Your task to perform on an android device: add a contact in the contacts app Image 0: 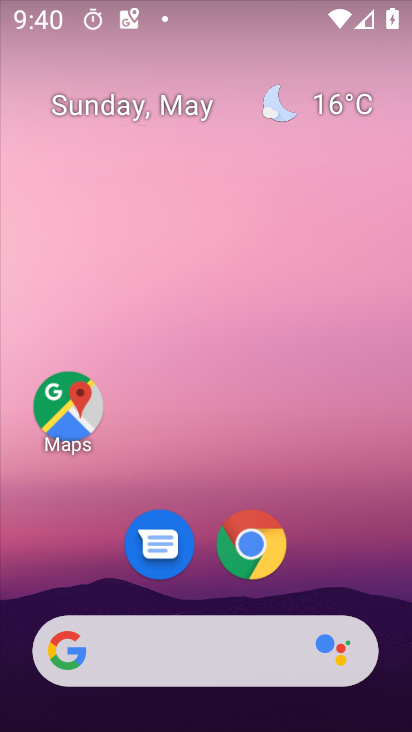
Step 0: drag from (320, 578) to (233, 10)
Your task to perform on an android device: add a contact in the contacts app Image 1: 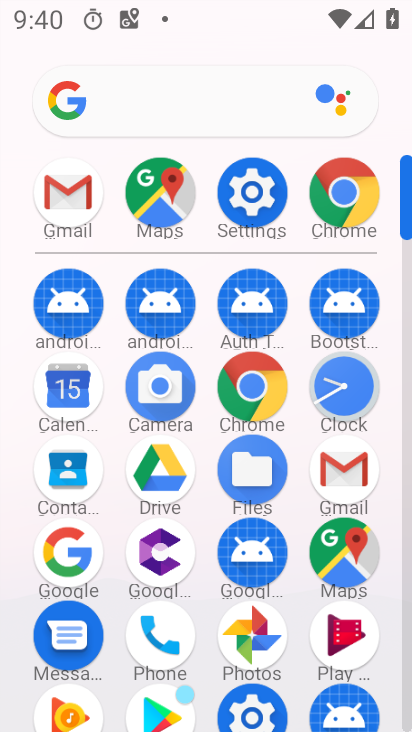
Step 1: click (75, 474)
Your task to perform on an android device: add a contact in the contacts app Image 2: 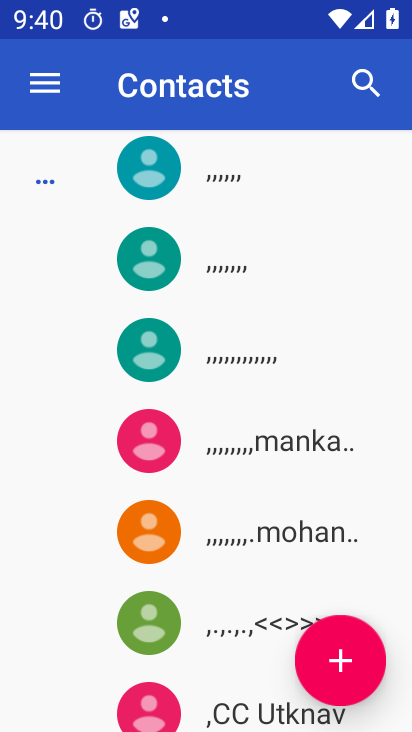
Step 2: click (352, 675)
Your task to perform on an android device: add a contact in the contacts app Image 3: 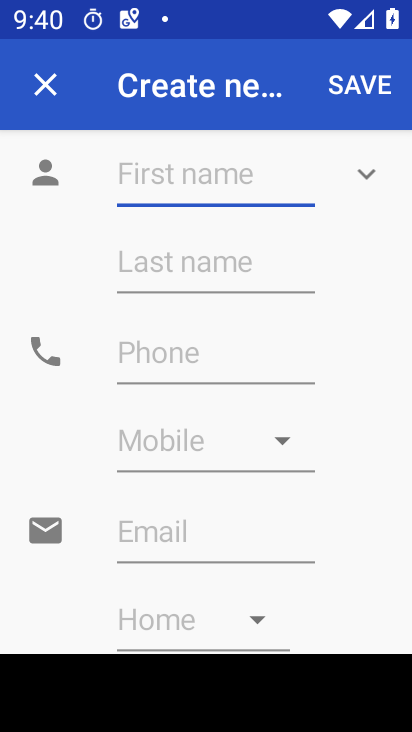
Step 3: type "Nanda"
Your task to perform on an android device: add a contact in the contacts app Image 4: 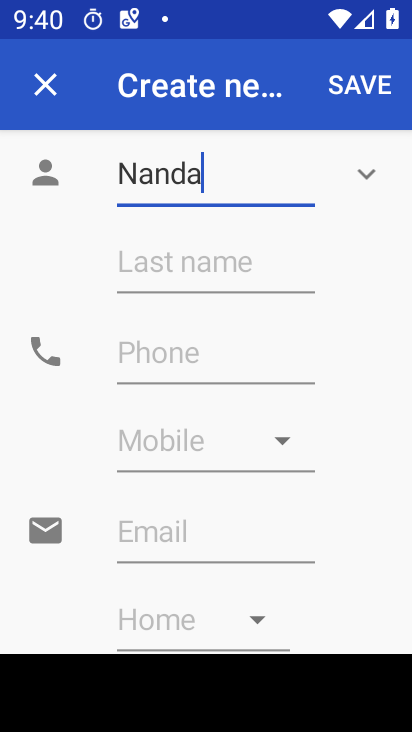
Step 4: click (233, 264)
Your task to perform on an android device: add a contact in the contacts app Image 5: 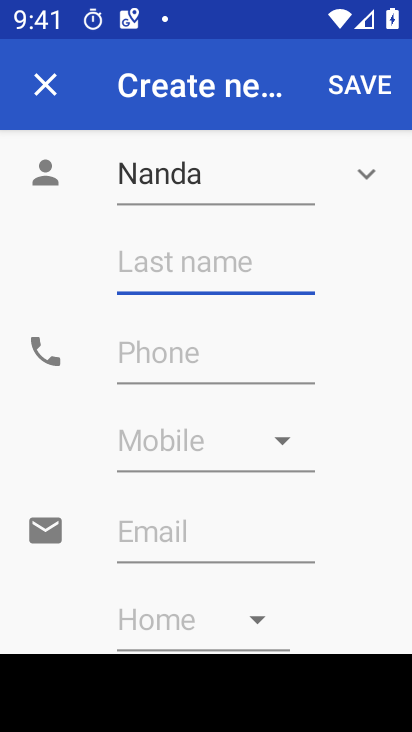
Step 5: type "verma"
Your task to perform on an android device: add a contact in the contacts app Image 6: 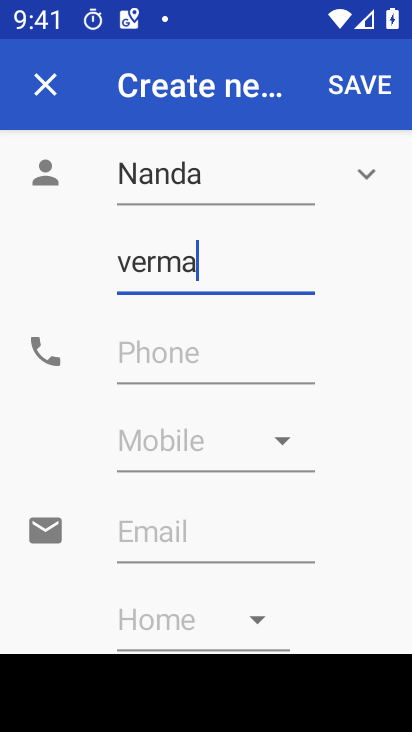
Step 6: click (129, 367)
Your task to perform on an android device: add a contact in the contacts app Image 7: 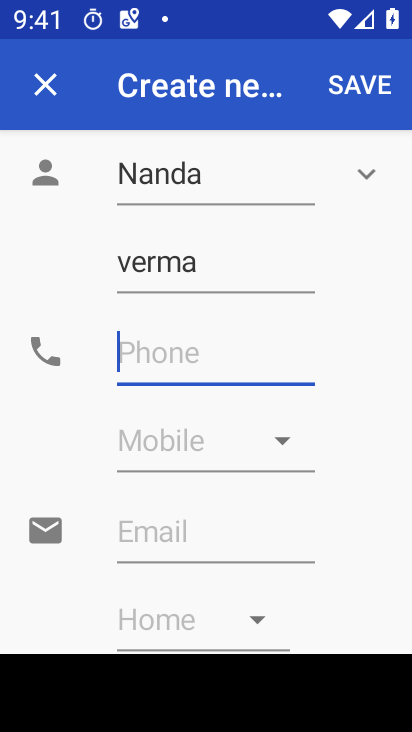
Step 7: type "8787656543"
Your task to perform on an android device: add a contact in the contacts app Image 8: 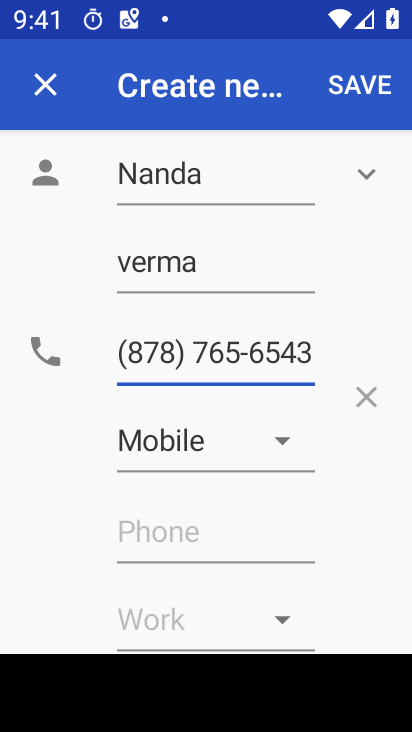
Step 8: click (347, 77)
Your task to perform on an android device: add a contact in the contacts app Image 9: 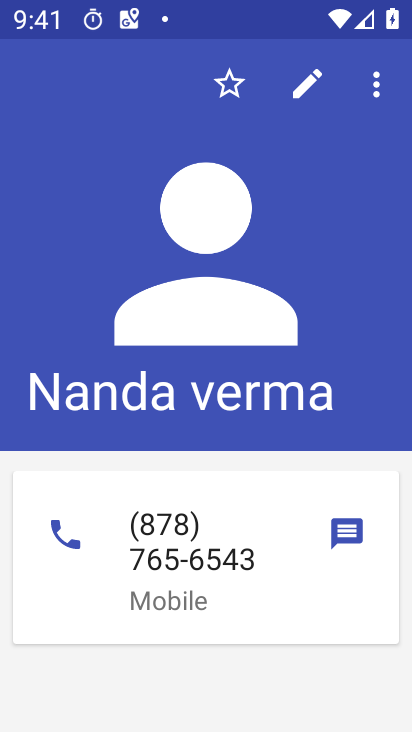
Step 9: task complete